Your task to perform on an android device: Open calendar and show me the first week of next month Image 0: 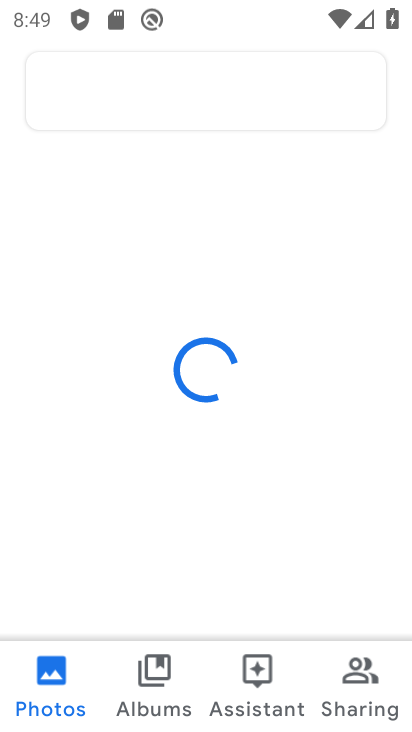
Step 0: press home button
Your task to perform on an android device: Open calendar and show me the first week of next month Image 1: 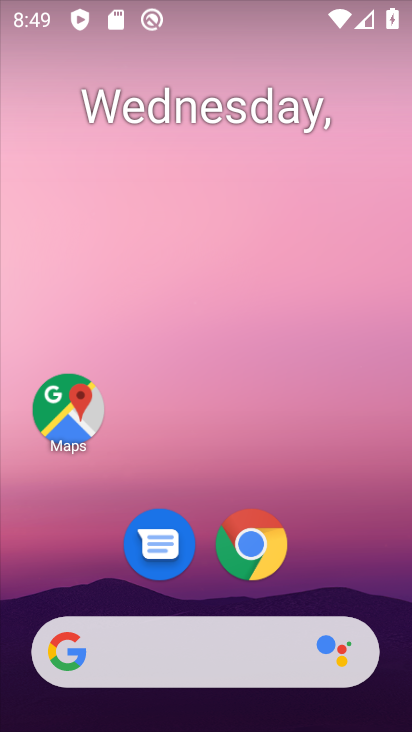
Step 1: drag from (150, 636) to (254, 35)
Your task to perform on an android device: Open calendar and show me the first week of next month Image 2: 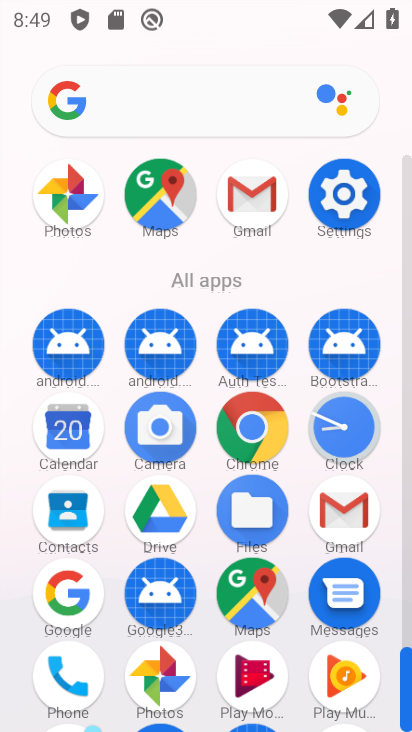
Step 2: click (68, 447)
Your task to perform on an android device: Open calendar and show me the first week of next month Image 3: 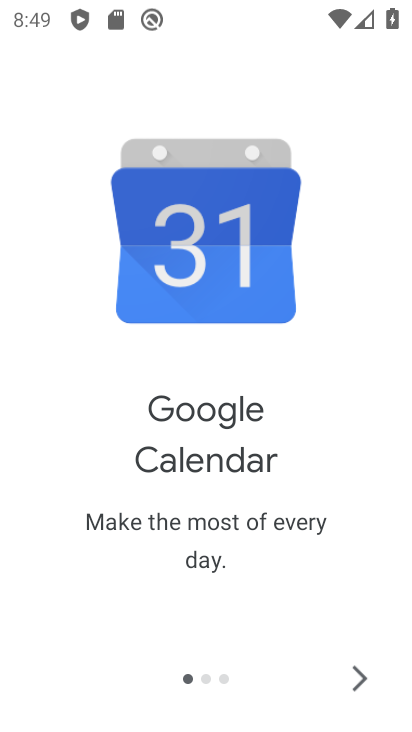
Step 3: click (352, 667)
Your task to perform on an android device: Open calendar and show me the first week of next month Image 4: 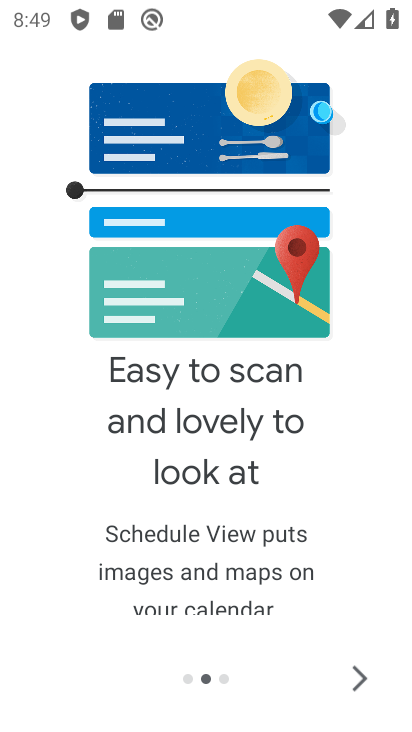
Step 4: click (352, 667)
Your task to perform on an android device: Open calendar and show me the first week of next month Image 5: 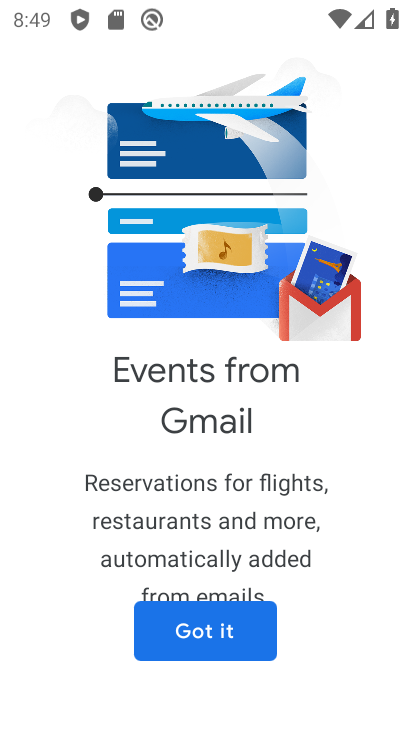
Step 5: click (202, 638)
Your task to perform on an android device: Open calendar and show me the first week of next month Image 6: 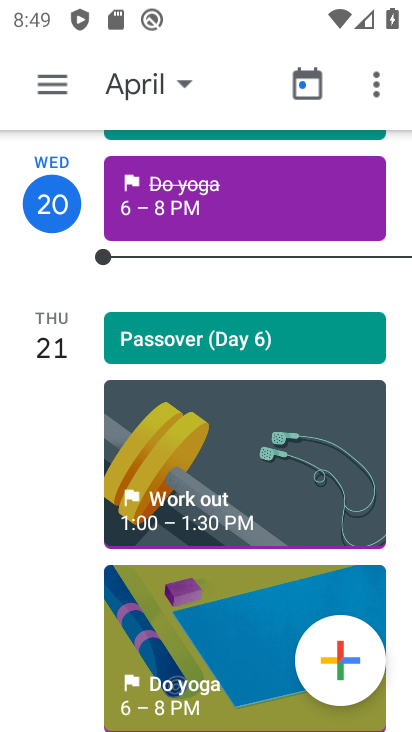
Step 6: click (113, 82)
Your task to perform on an android device: Open calendar and show me the first week of next month Image 7: 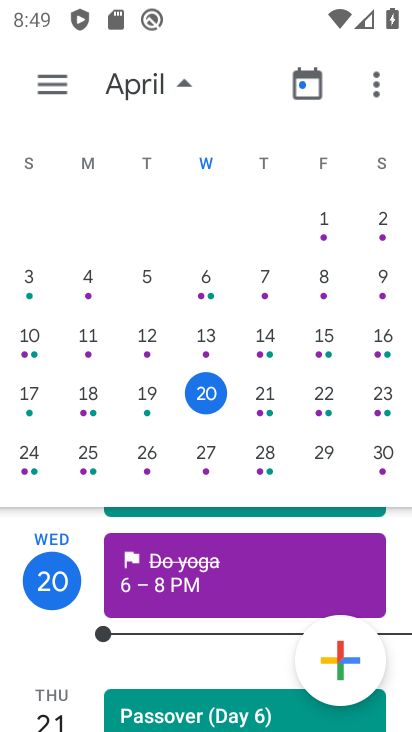
Step 7: drag from (343, 411) to (8, 397)
Your task to perform on an android device: Open calendar and show me the first week of next month Image 8: 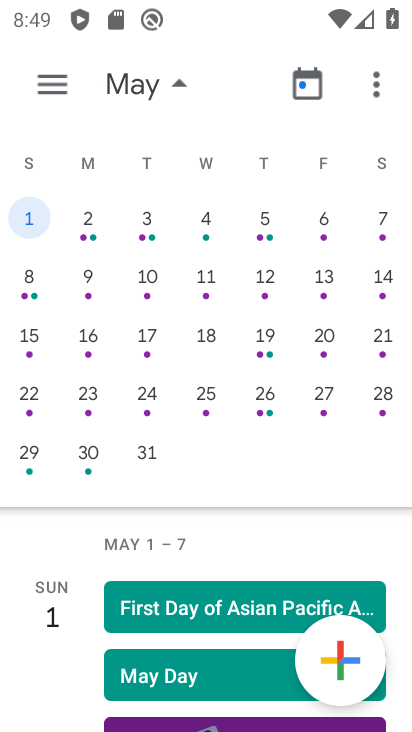
Step 8: click (33, 220)
Your task to perform on an android device: Open calendar and show me the first week of next month Image 9: 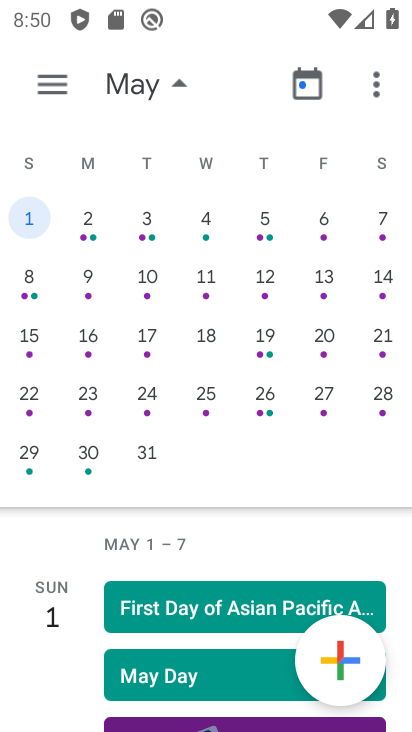
Step 9: click (56, 86)
Your task to perform on an android device: Open calendar and show me the first week of next month Image 10: 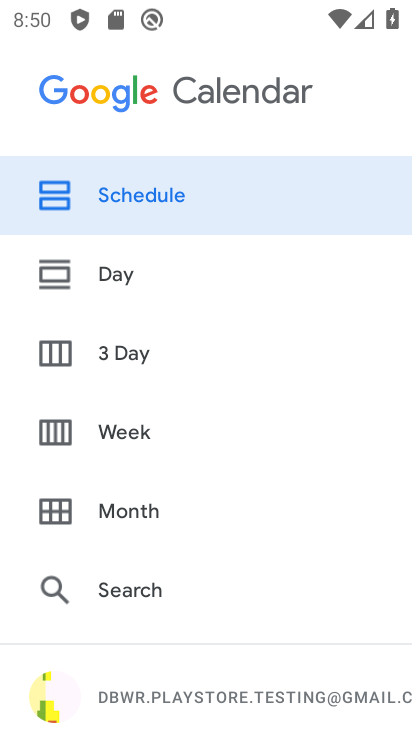
Step 10: click (129, 435)
Your task to perform on an android device: Open calendar and show me the first week of next month Image 11: 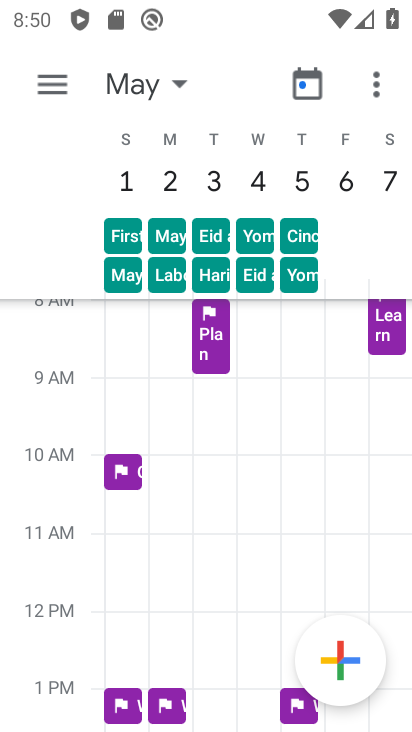
Step 11: task complete